Your task to perform on an android device: choose inbox layout in the gmail app Image 0: 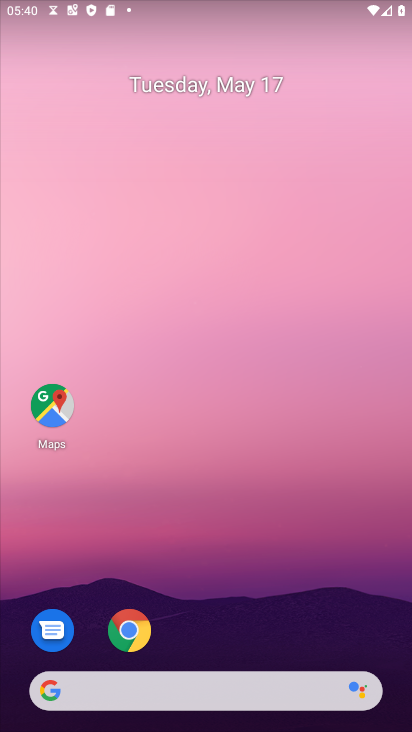
Step 0: press home button
Your task to perform on an android device: choose inbox layout in the gmail app Image 1: 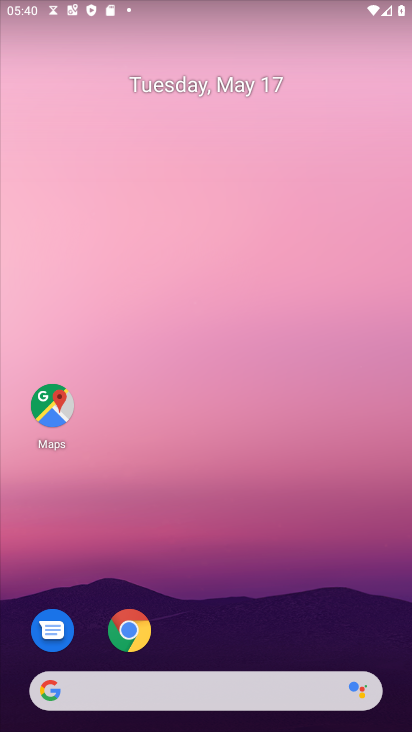
Step 1: drag from (292, 588) to (224, 14)
Your task to perform on an android device: choose inbox layout in the gmail app Image 2: 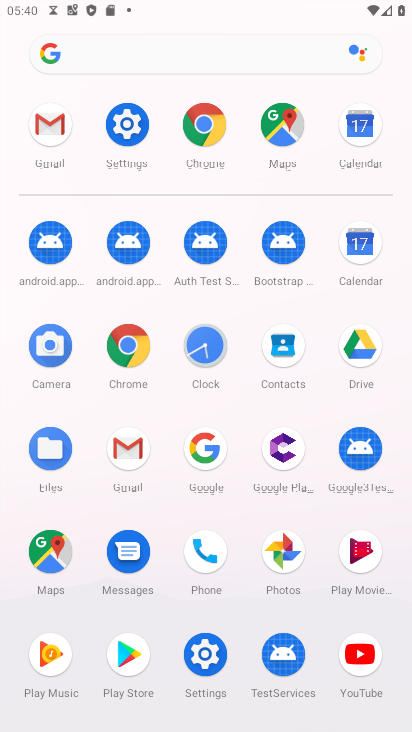
Step 2: click (34, 129)
Your task to perform on an android device: choose inbox layout in the gmail app Image 3: 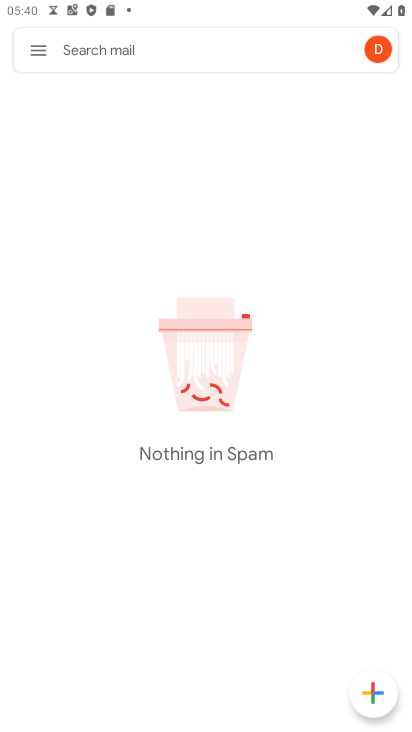
Step 3: click (30, 50)
Your task to perform on an android device: choose inbox layout in the gmail app Image 4: 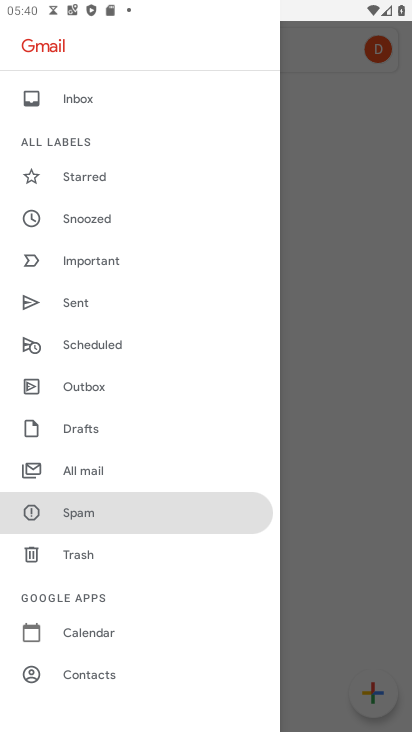
Step 4: drag from (126, 639) to (99, 443)
Your task to perform on an android device: choose inbox layout in the gmail app Image 5: 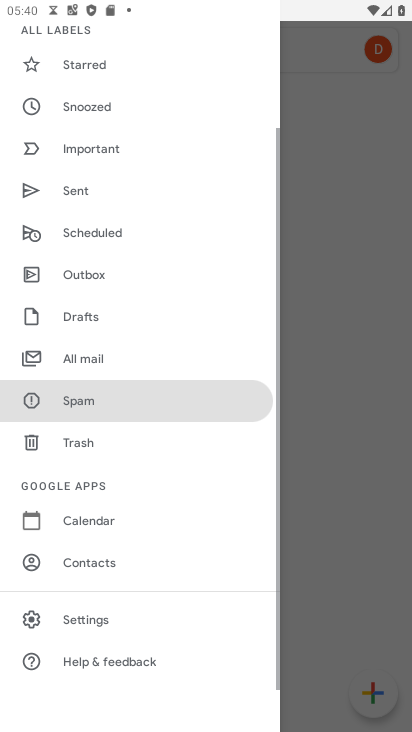
Step 5: click (89, 606)
Your task to perform on an android device: choose inbox layout in the gmail app Image 6: 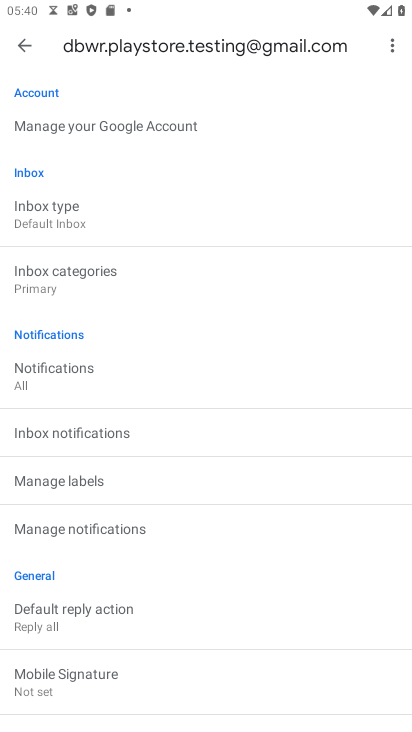
Step 6: click (41, 226)
Your task to perform on an android device: choose inbox layout in the gmail app Image 7: 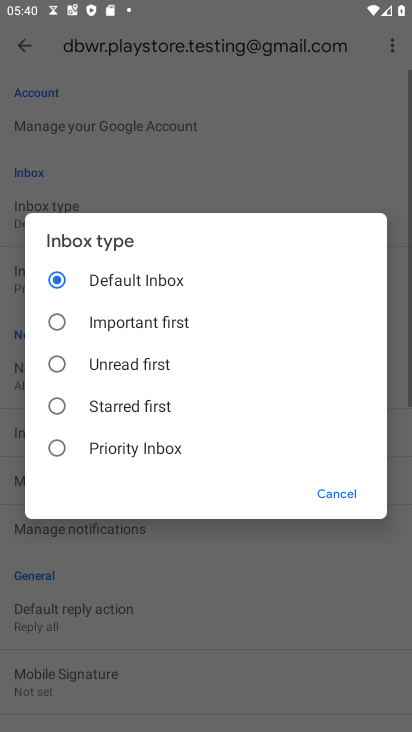
Step 7: click (61, 411)
Your task to perform on an android device: choose inbox layout in the gmail app Image 8: 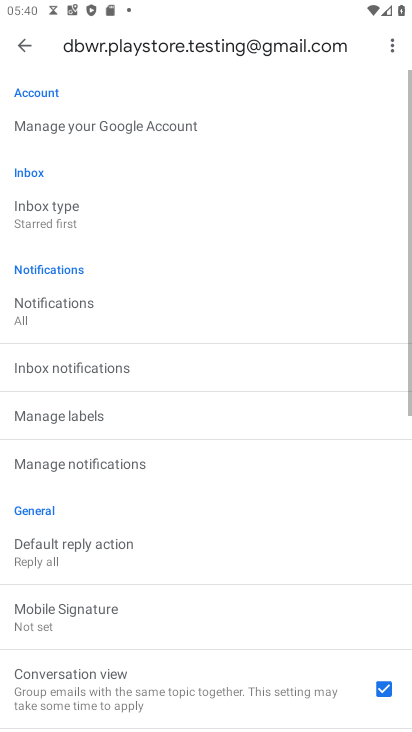
Step 8: task complete